Your task to perform on an android device: toggle javascript in the chrome app Image 0: 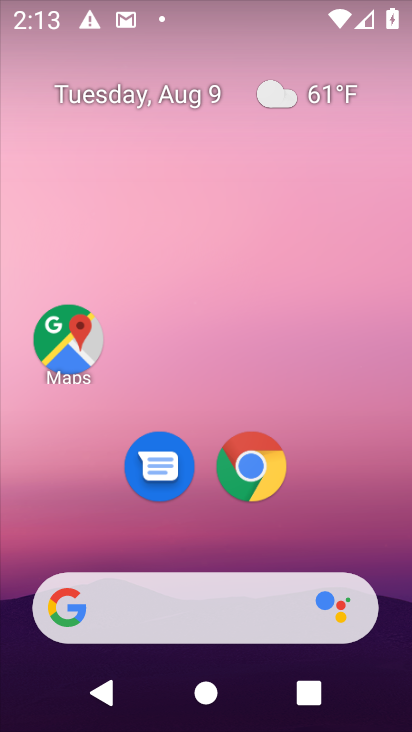
Step 0: click (251, 470)
Your task to perform on an android device: toggle javascript in the chrome app Image 1: 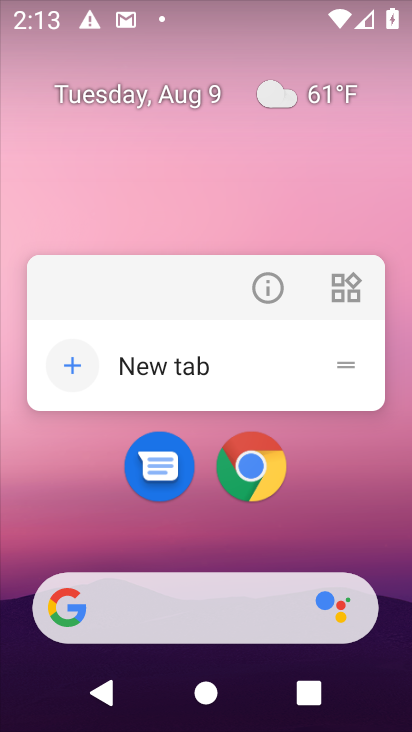
Step 1: click (257, 455)
Your task to perform on an android device: toggle javascript in the chrome app Image 2: 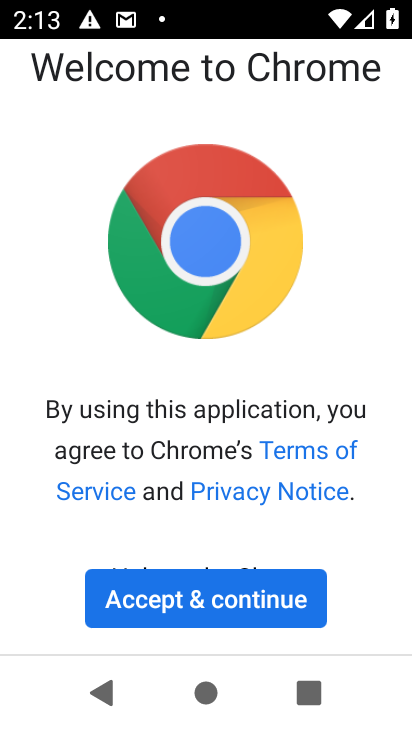
Step 2: click (226, 598)
Your task to perform on an android device: toggle javascript in the chrome app Image 3: 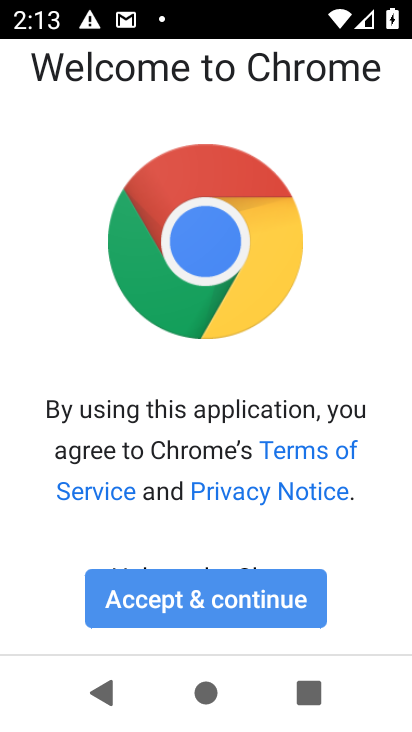
Step 3: click (175, 597)
Your task to perform on an android device: toggle javascript in the chrome app Image 4: 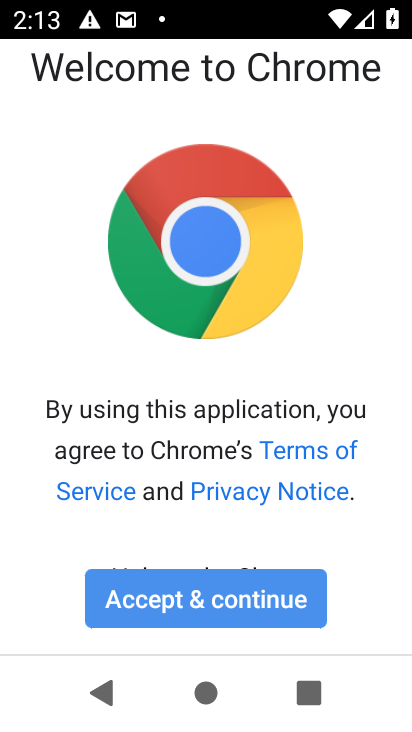
Step 4: click (201, 607)
Your task to perform on an android device: toggle javascript in the chrome app Image 5: 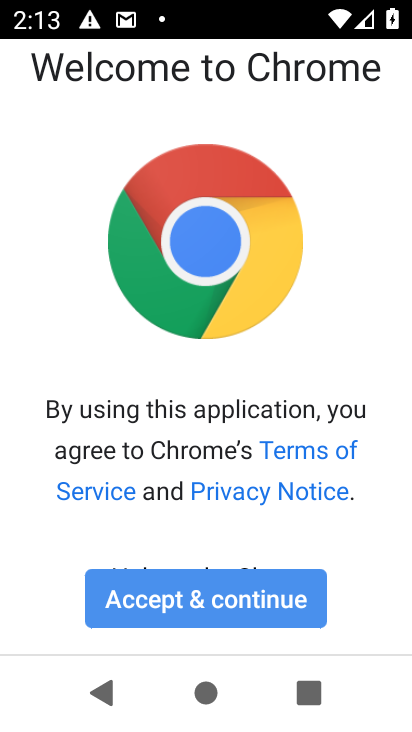
Step 5: click (222, 602)
Your task to perform on an android device: toggle javascript in the chrome app Image 6: 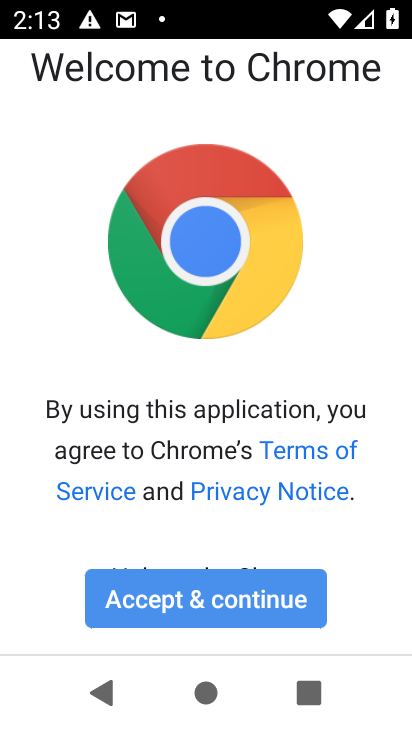
Step 6: click (197, 603)
Your task to perform on an android device: toggle javascript in the chrome app Image 7: 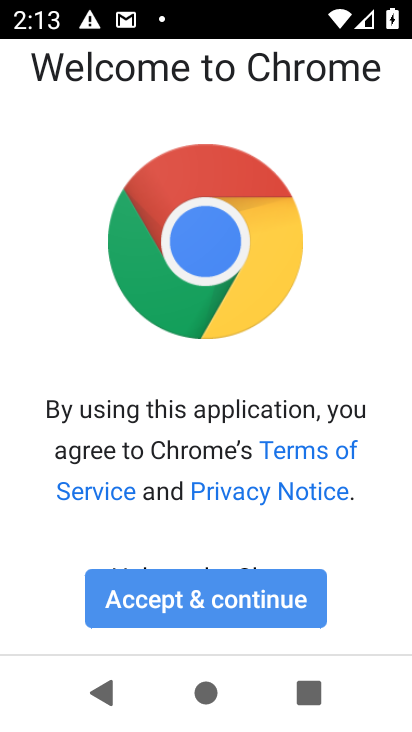
Step 7: click (176, 599)
Your task to perform on an android device: toggle javascript in the chrome app Image 8: 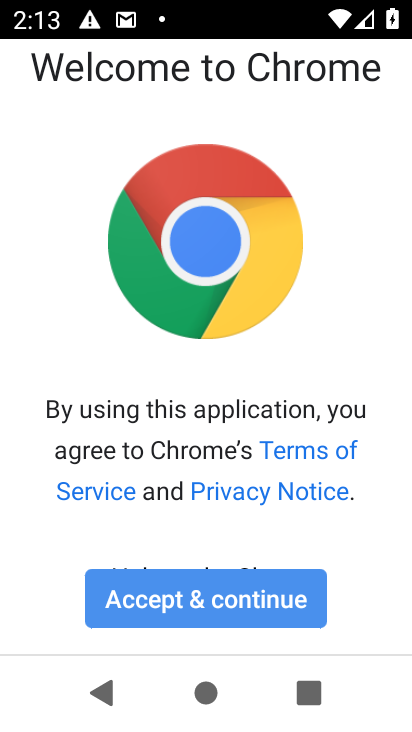
Step 8: task complete